Your task to perform on an android device: Open network settings Image 0: 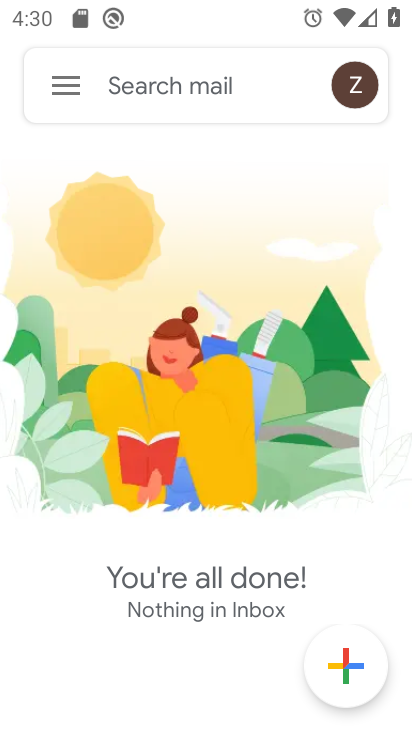
Step 0: press home button
Your task to perform on an android device: Open network settings Image 1: 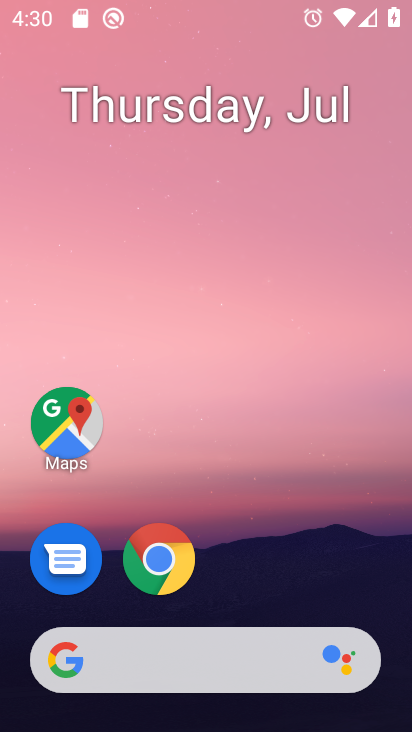
Step 1: click (262, 548)
Your task to perform on an android device: Open network settings Image 2: 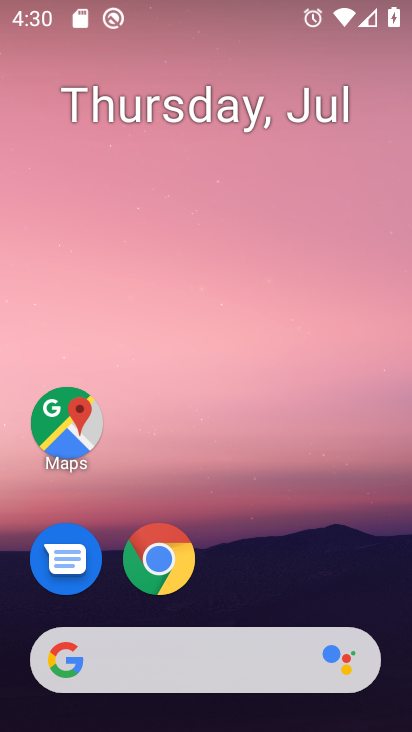
Step 2: drag from (182, 689) to (208, 307)
Your task to perform on an android device: Open network settings Image 3: 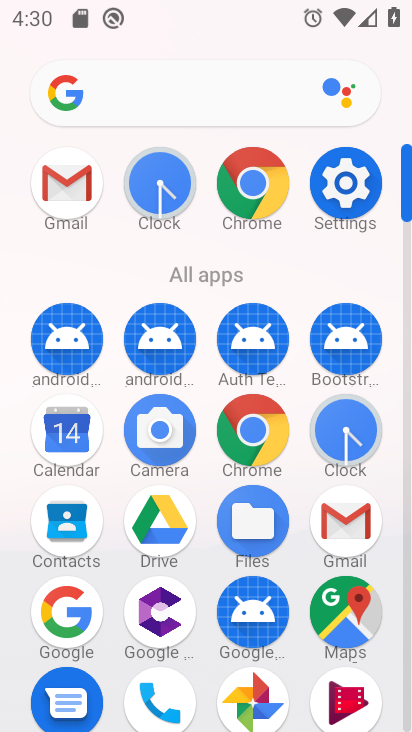
Step 3: drag from (327, 164) to (302, 376)
Your task to perform on an android device: Open network settings Image 4: 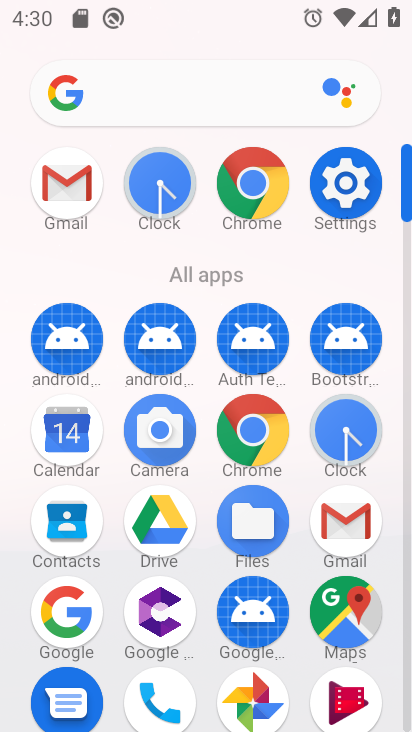
Step 4: click (336, 186)
Your task to perform on an android device: Open network settings Image 5: 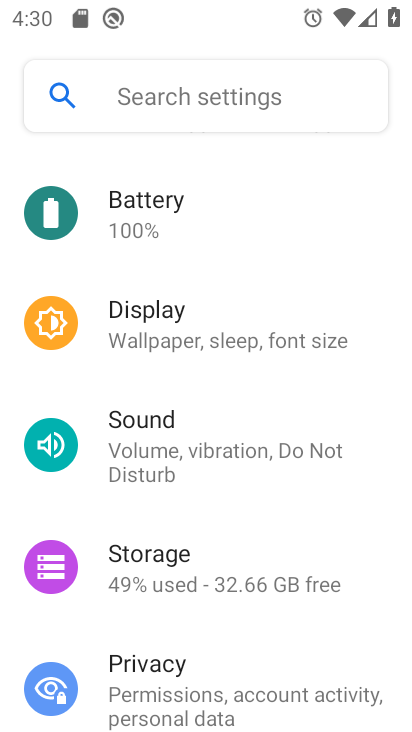
Step 5: drag from (164, 517) to (214, 342)
Your task to perform on an android device: Open network settings Image 6: 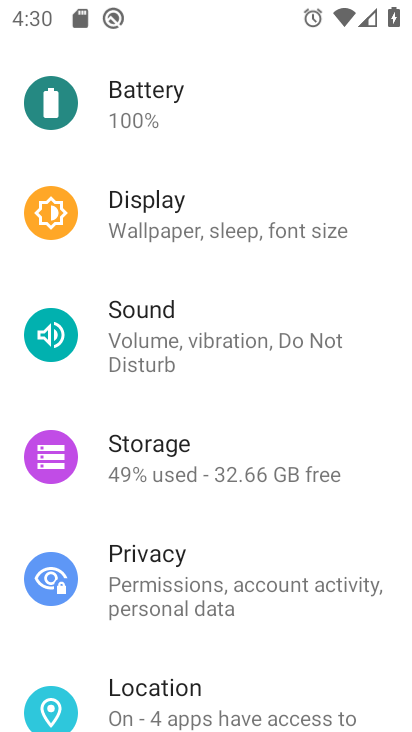
Step 6: drag from (243, 611) to (252, 413)
Your task to perform on an android device: Open network settings Image 7: 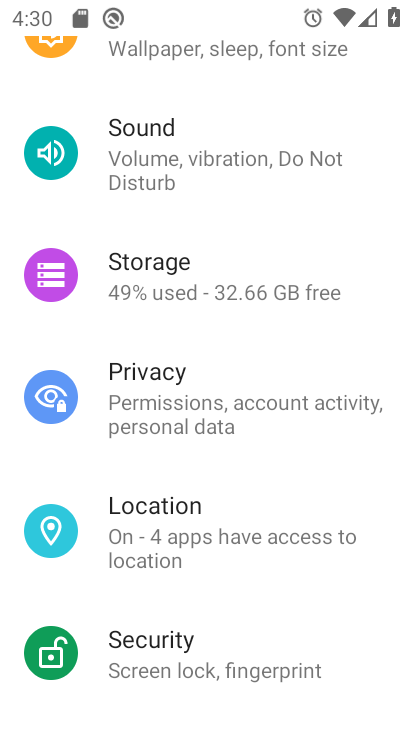
Step 7: drag from (214, 230) to (188, 718)
Your task to perform on an android device: Open network settings Image 8: 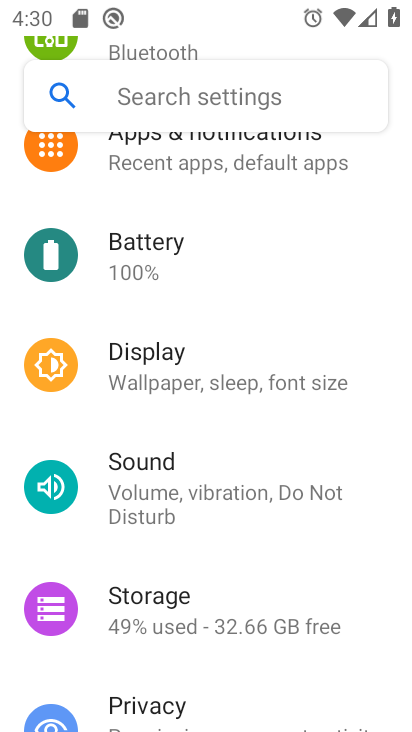
Step 8: drag from (193, 334) to (203, 723)
Your task to perform on an android device: Open network settings Image 9: 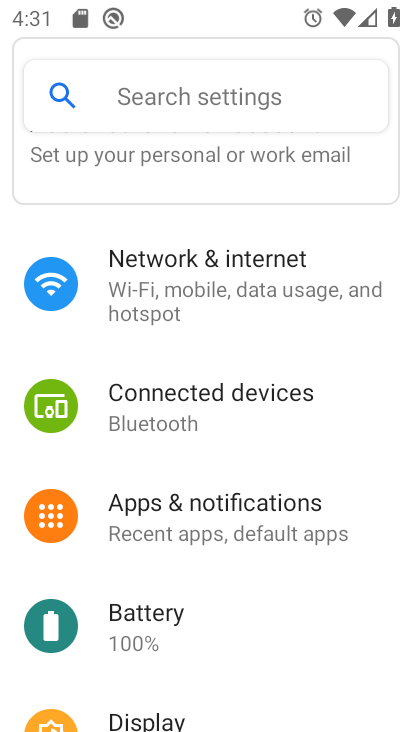
Step 9: click (236, 272)
Your task to perform on an android device: Open network settings Image 10: 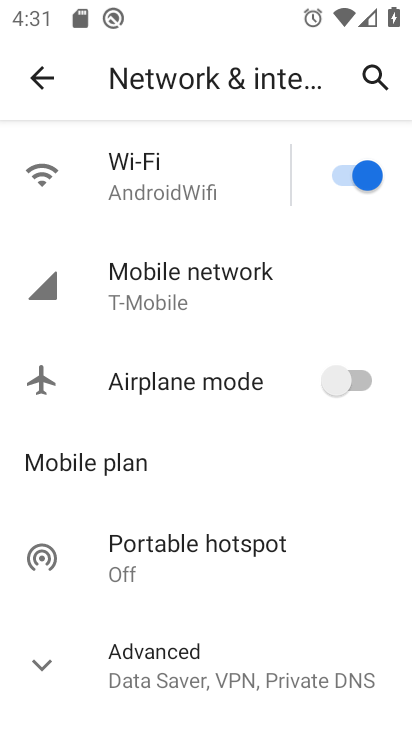
Step 10: click (183, 287)
Your task to perform on an android device: Open network settings Image 11: 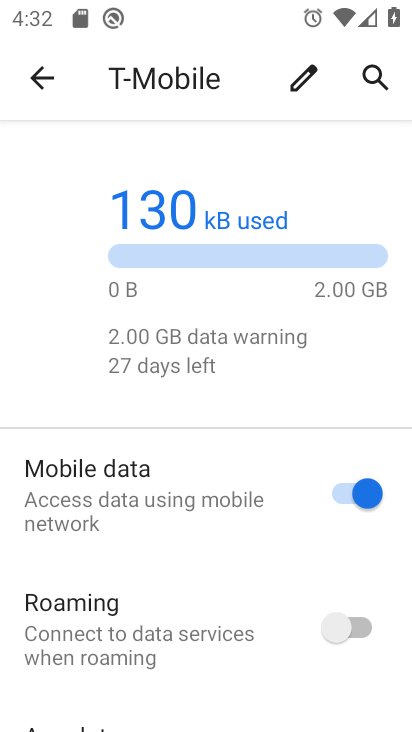
Step 11: task complete